Your task to perform on an android device: check storage Image 0: 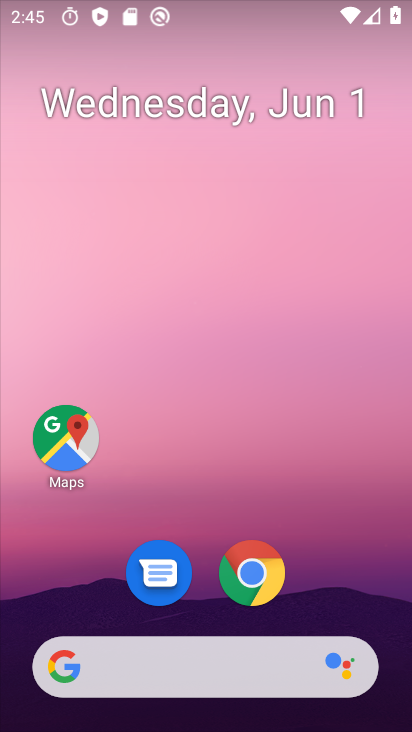
Step 0: drag from (205, 627) to (206, 335)
Your task to perform on an android device: check storage Image 1: 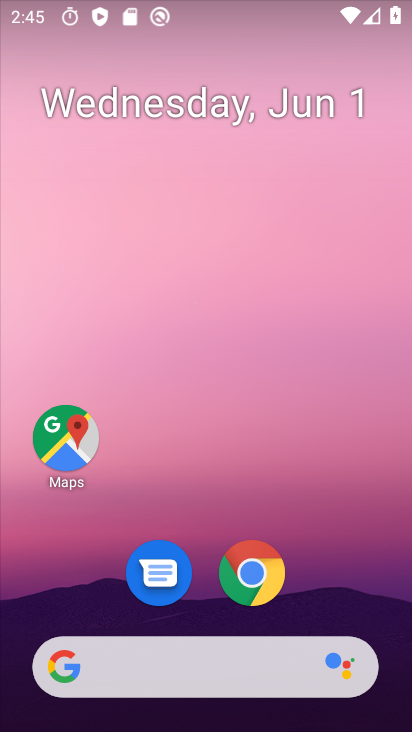
Step 1: drag from (212, 624) to (217, 171)
Your task to perform on an android device: check storage Image 2: 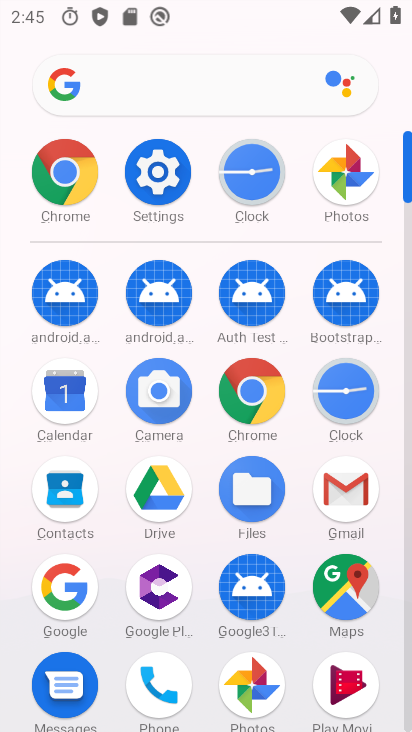
Step 2: click (158, 171)
Your task to perform on an android device: check storage Image 3: 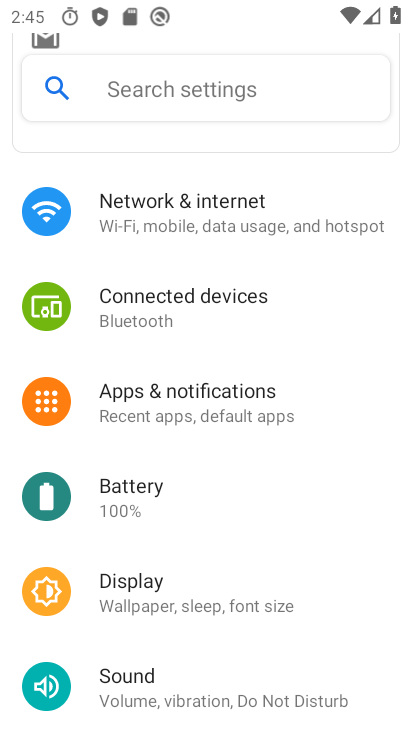
Step 3: drag from (180, 650) to (199, 359)
Your task to perform on an android device: check storage Image 4: 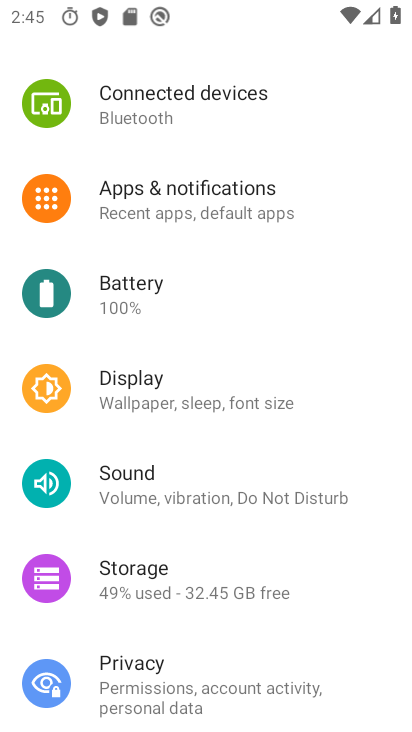
Step 4: click (208, 569)
Your task to perform on an android device: check storage Image 5: 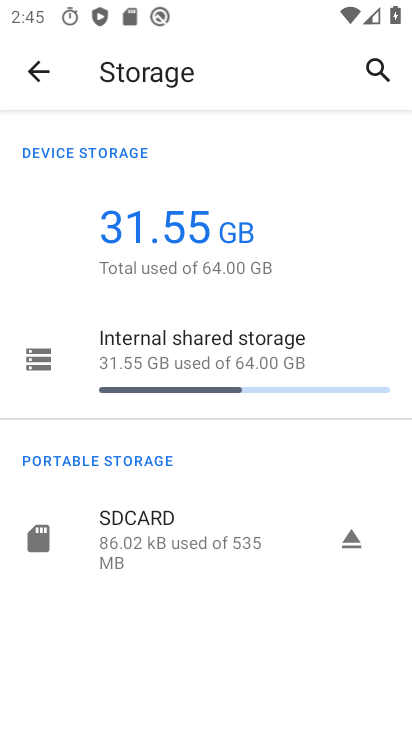
Step 5: task complete